Your task to perform on an android device: Open location settings Image 0: 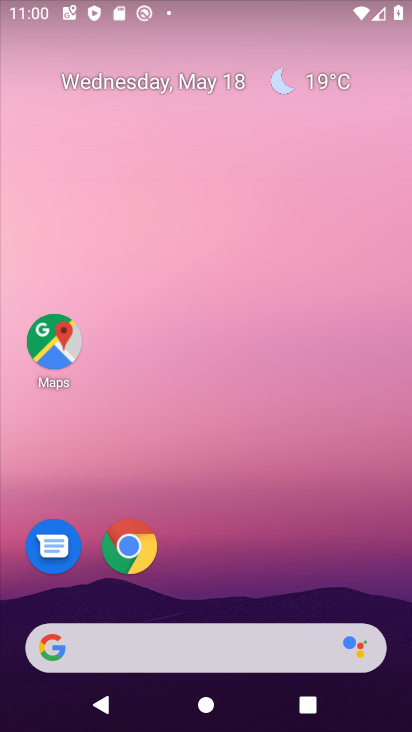
Step 0: drag from (231, 728) to (231, 15)
Your task to perform on an android device: Open location settings Image 1: 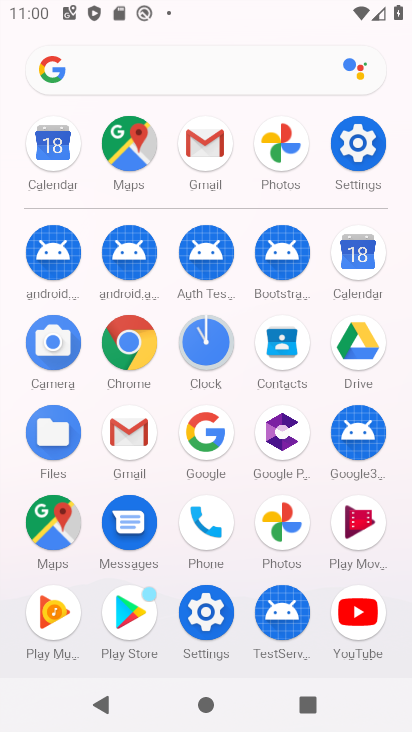
Step 1: click (340, 149)
Your task to perform on an android device: Open location settings Image 2: 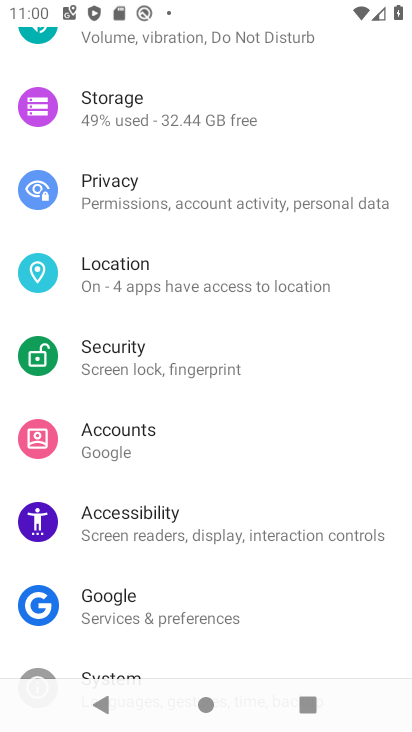
Step 2: click (127, 271)
Your task to perform on an android device: Open location settings Image 3: 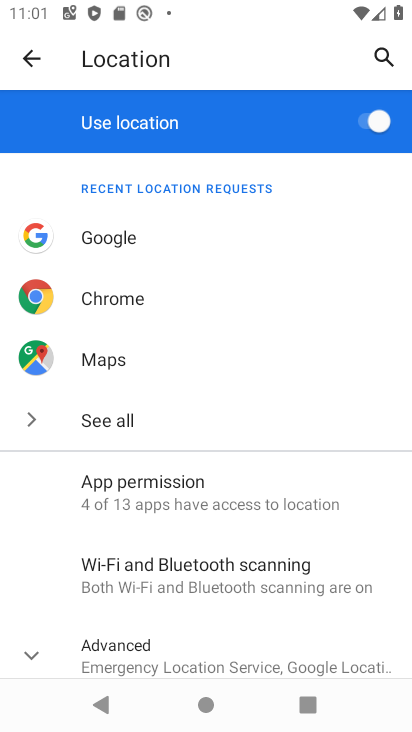
Step 3: task complete